Your task to perform on an android device: turn notification dots on Image 0: 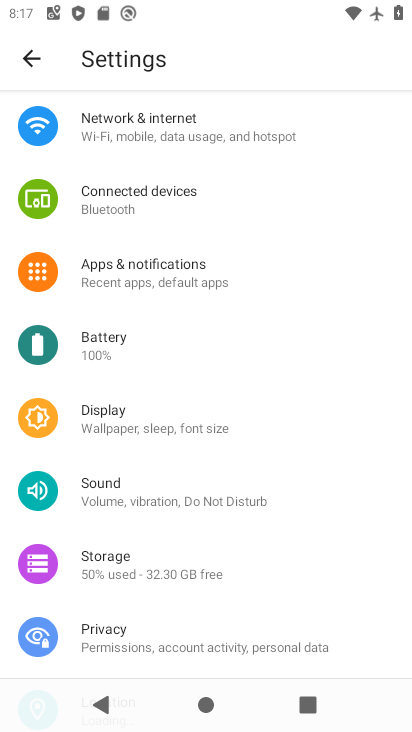
Step 0: press home button
Your task to perform on an android device: turn notification dots on Image 1: 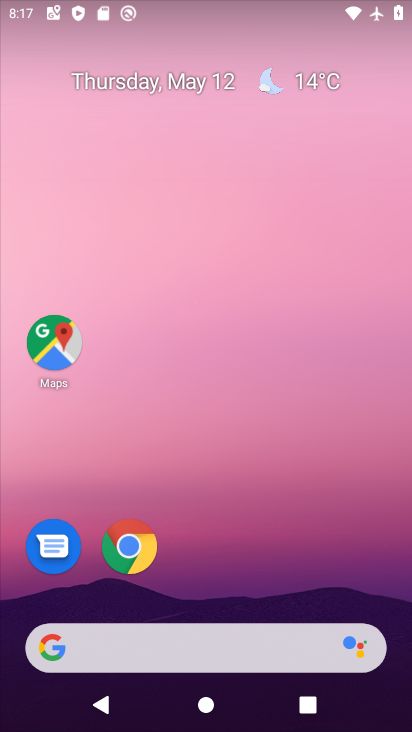
Step 1: drag from (189, 643) to (287, 133)
Your task to perform on an android device: turn notification dots on Image 2: 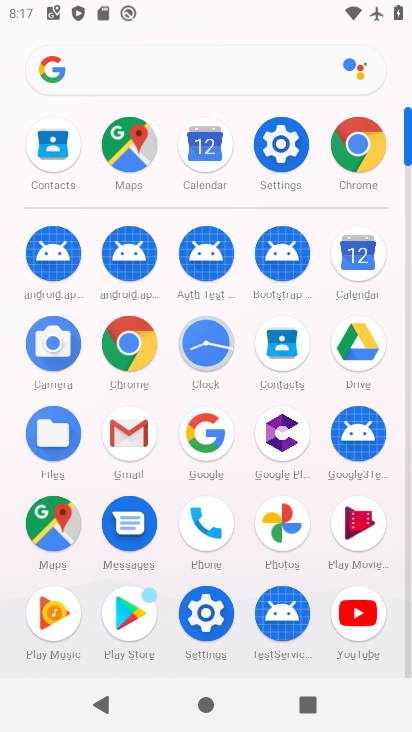
Step 2: click (272, 148)
Your task to perform on an android device: turn notification dots on Image 3: 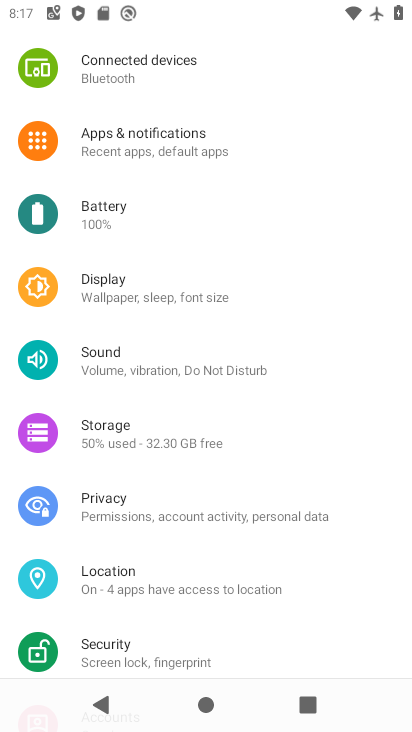
Step 3: click (161, 143)
Your task to perform on an android device: turn notification dots on Image 4: 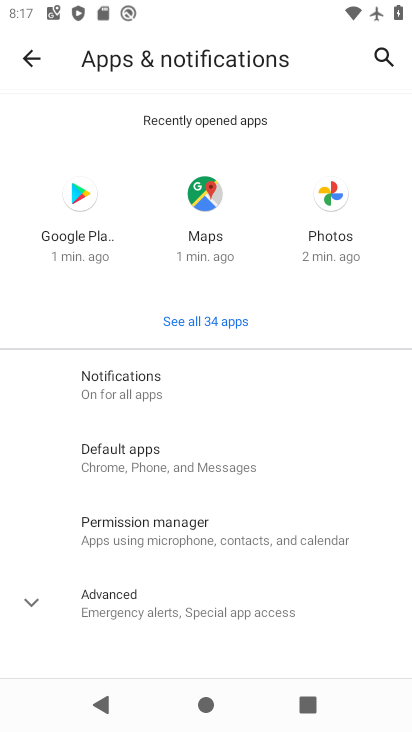
Step 4: click (129, 392)
Your task to perform on an android device: turn notification dots on Image 5: 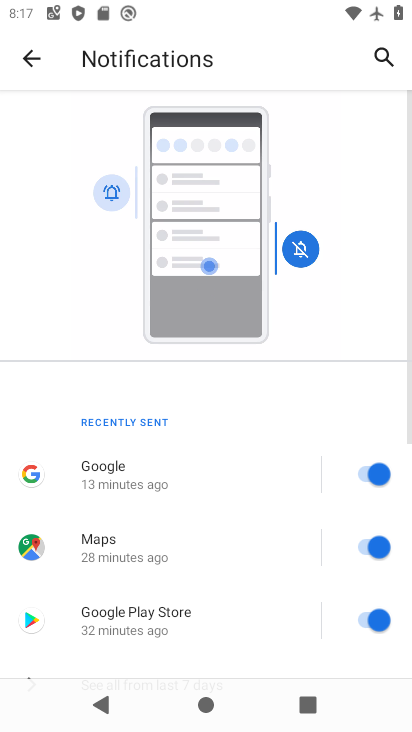
Step 5: drag from (166, 632) to (313, 54)
Your task to perform on an android device: turn notification dots on Image 6: 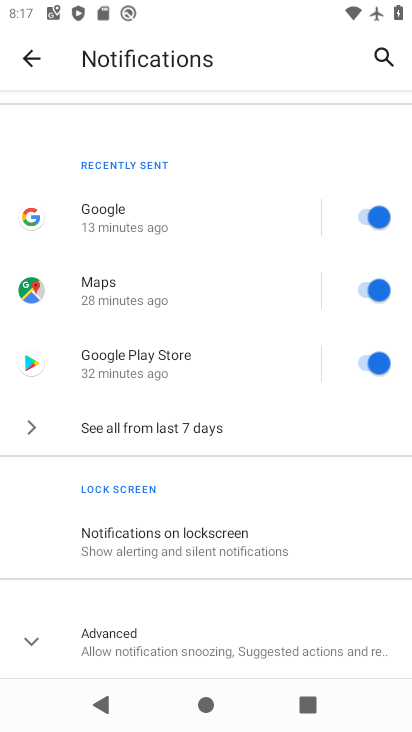
Step 6: drag from (252, 487) to (355, 205)
Your task to perform on an android device: turn notification dots on Image 7: 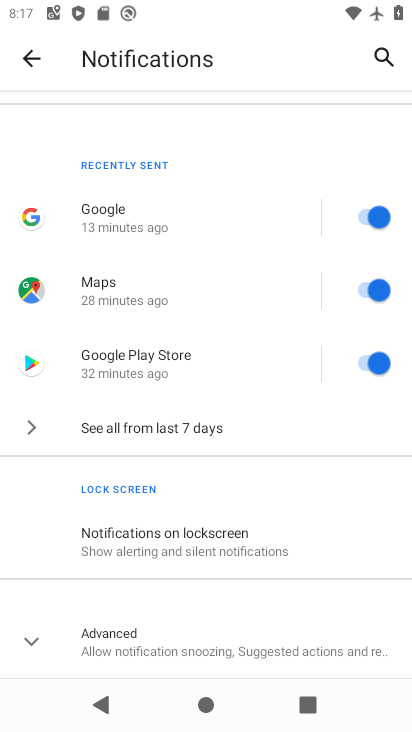
Step 7: click (95, 639)
Your task to perform on an android device: turn notification dots on Image 8: 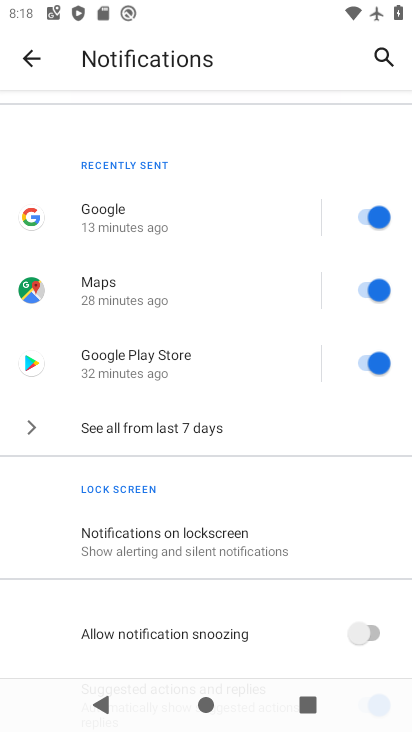
Step 8: task complete